Your task to perform on an android device: Go to Yahoo.com Image 0: 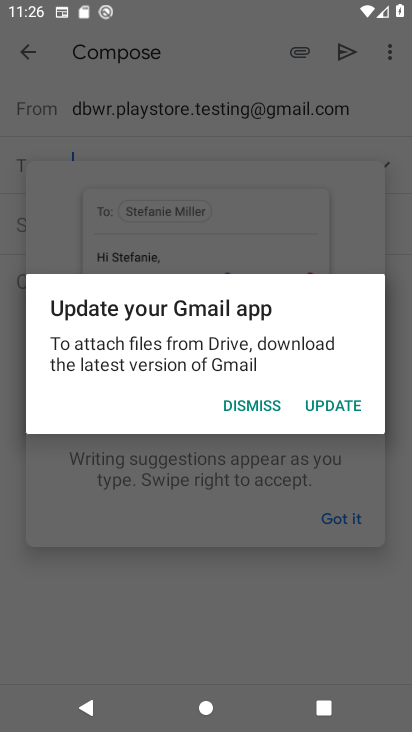
Step 0: press home button
Your task to perform on an android device: Go to Yahoo.com Image 1: 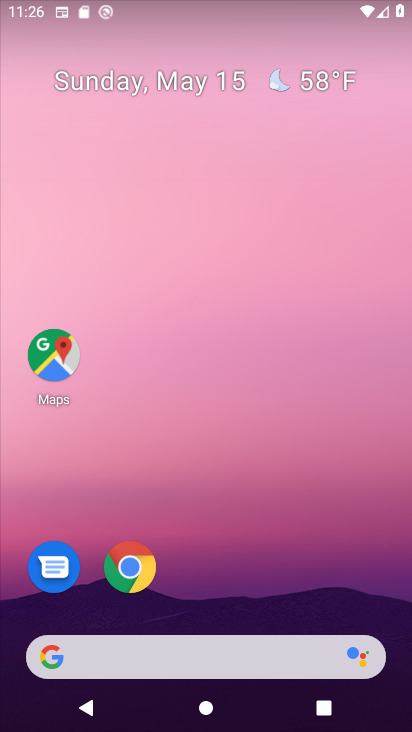
Step 1: click (130, 574)
Your task to perform on an android device: Go to Yahoo.com Image 2: 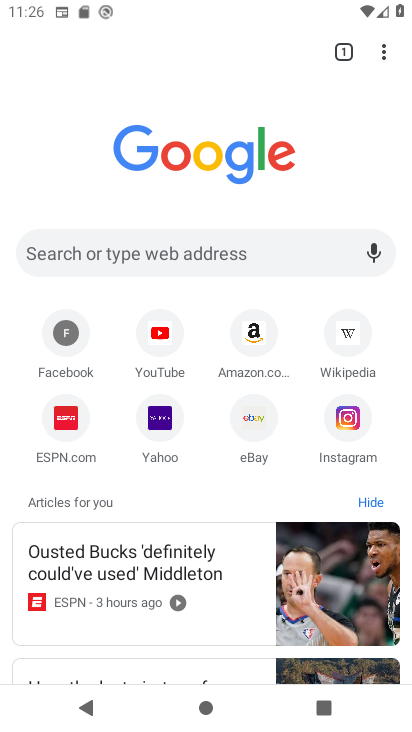
Step 2: click (164, 423)
Your task to perform on an android device: Go to Yahoo.com Image 3: 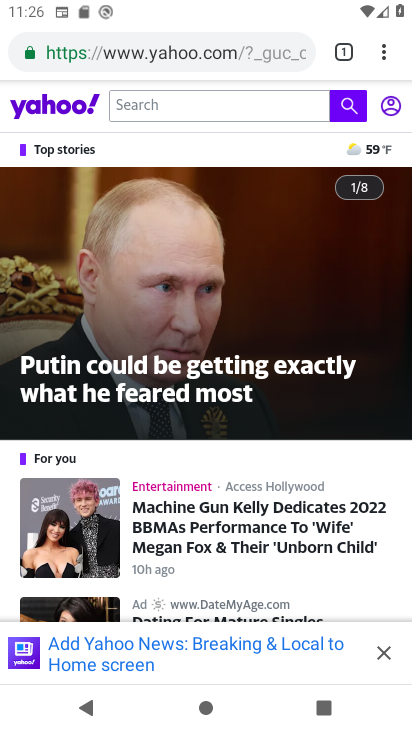
Step 3: task complete